Your task to perform on an android device: delete a single message in the gmail app Image 0: 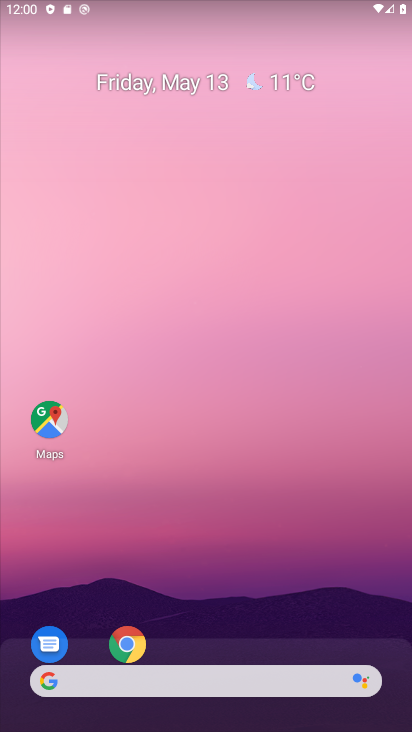
Step 0: drag from (216, 724) to (229, 123)
Your task to perform on an android device: delete a single message in the gmail app Image 1: 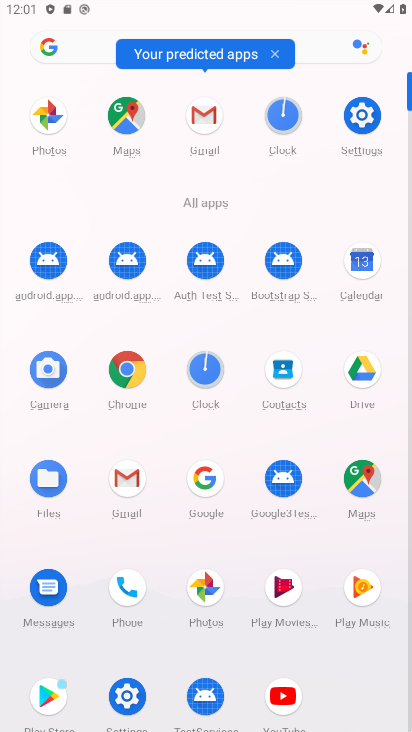
Step 1: click (121, 470)
Your task to perform on an android device: delete a single message in the gmail app Image 2: 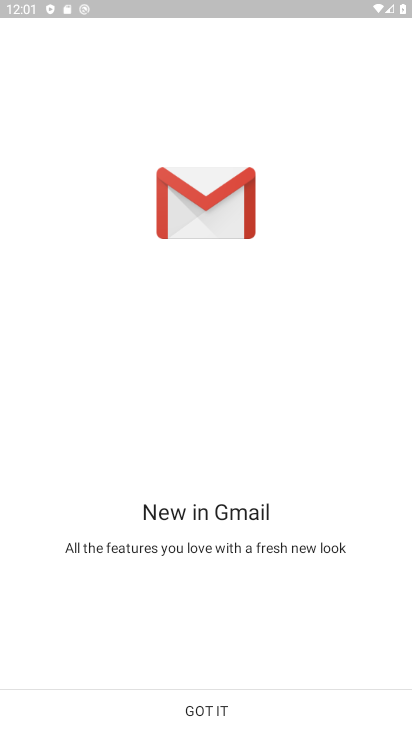
Step 2: click (197, 710)
Your task to perform on an android device: delete a single message in the gmail app Image 3: 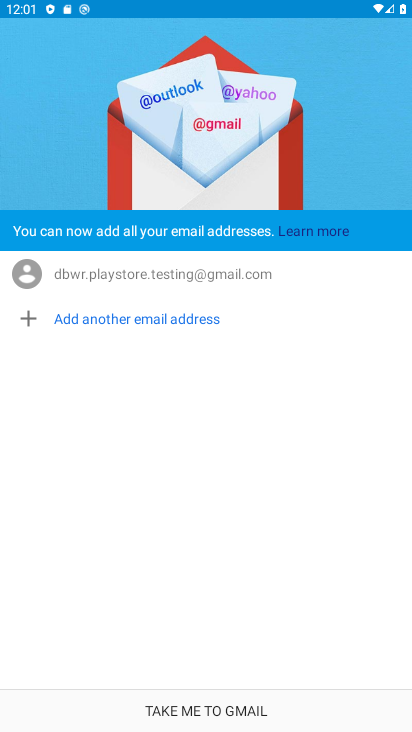
Step 3: click (188, 705)
Your task to perform on an android device: delete a single message in the gmail app Image 4: 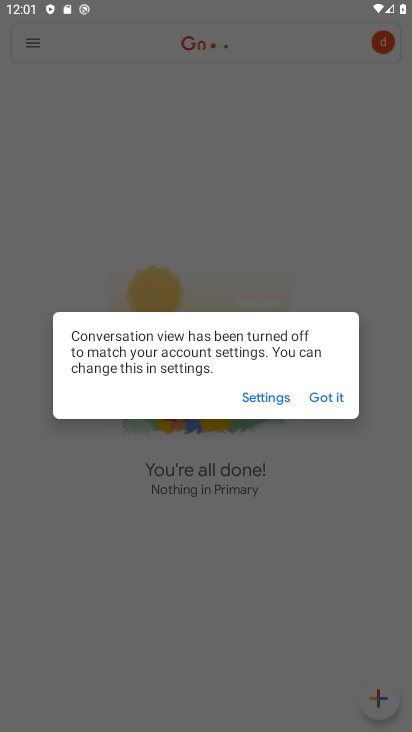
Step 4: click (327, 394)
Your task to perform on an android device: delete a single message in the gmail app Image 5: 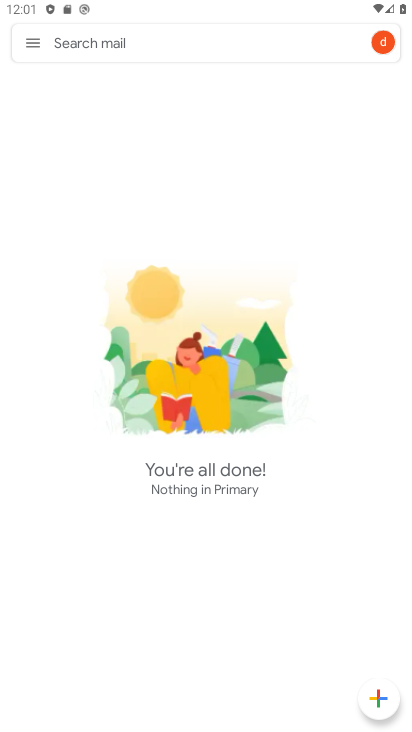
Step 5: task complete